Your task to perform on an android device: Turn on the flashlight Image 0: 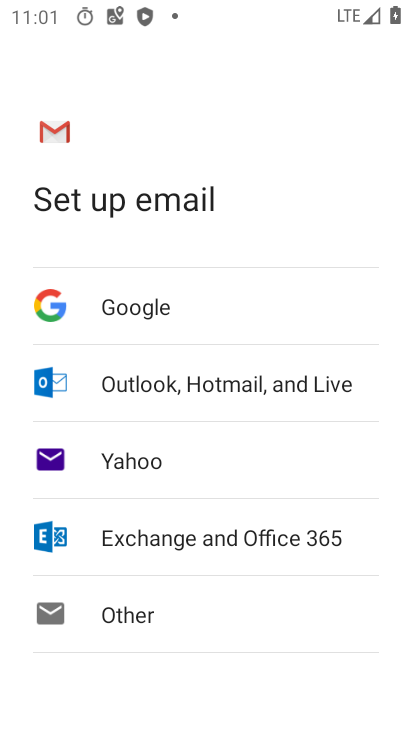
Step 0: press home button
Your task to perform on an android device: Turn on the flashlight Image 1: 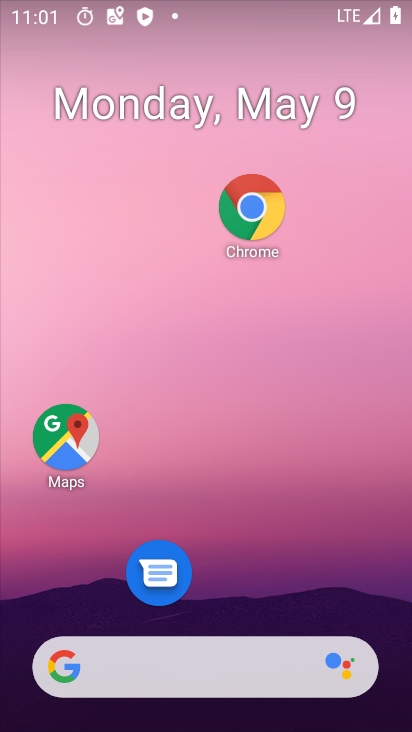
Step 1: task complete